Your task to perform on an android device: turn off javascript in the chrome app Image 0: 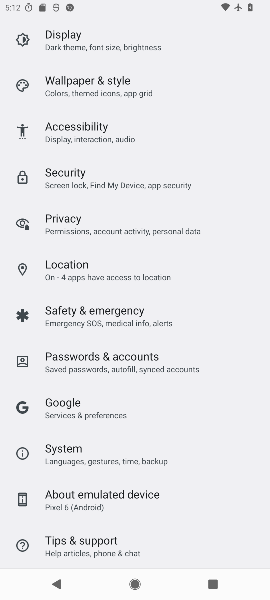
Step 0: press home button
Your task to perform on an android device: turn off javascript in the chrome app Image 1: 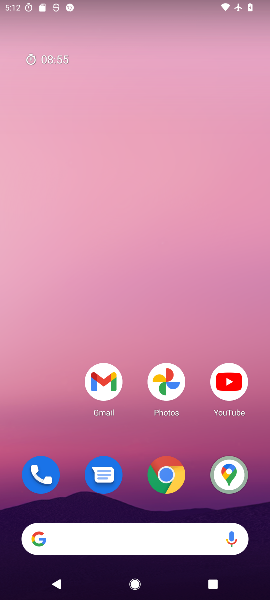
Step 1: drag from (66, 434) to (66, 153)
Your task to perform on an android device: turn off javascript in the chrome app Image 2: 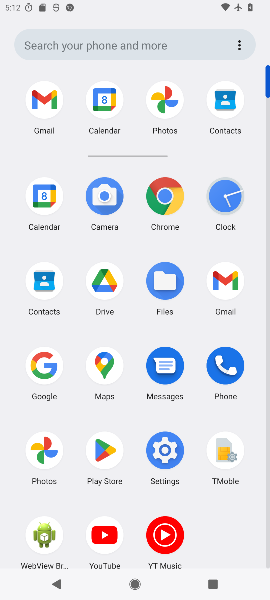
Step 2: click (163, 197)
Your task to perform on an android device: turn off javascript in the chrome app Image 3: 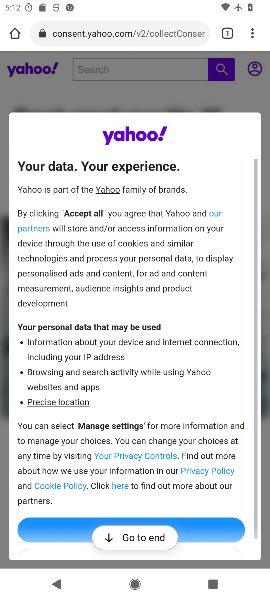
Step 3: click (253, 34)
Your task to perform on an android device: turn off javascript in the chrome app Image 4: 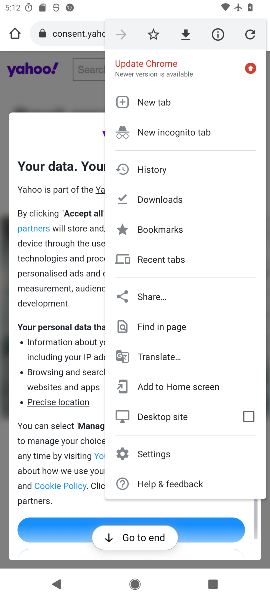
Step 4: click (152, 454)
Your task to perform on an android device: turn off javascript in the chrome app Image 5: 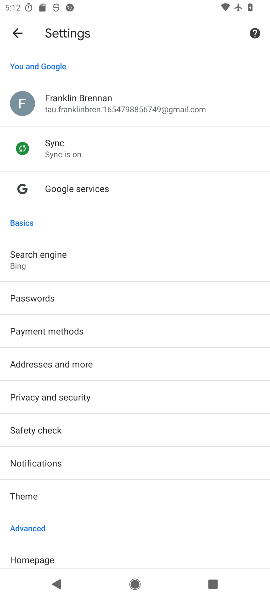
Step 5: drag from (201, 483) to (211, 401)
Your task to perform on an android device: turn off javascript in the chrome app Image 6: 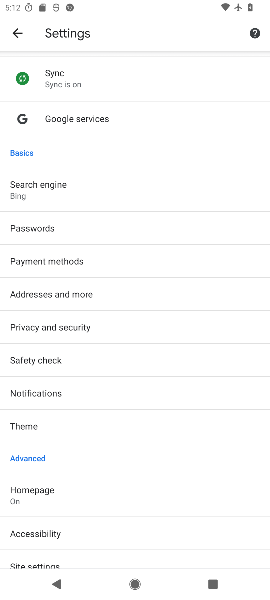
Step 6: drag from (188, 488) to (199, 399)
Your task to perform on an android device: turn off javascript in the chrome app Image 7: 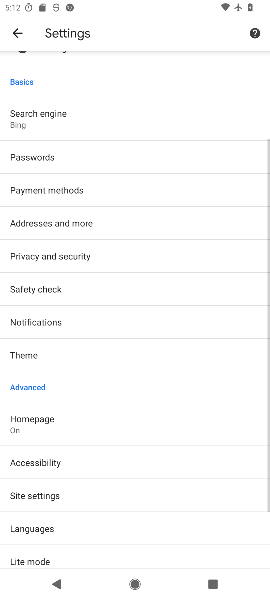
Step 7: drag from (189, 509) to (191, 421)
Your task to perform on an android device: turn off javascript in the chrome app Image 8: 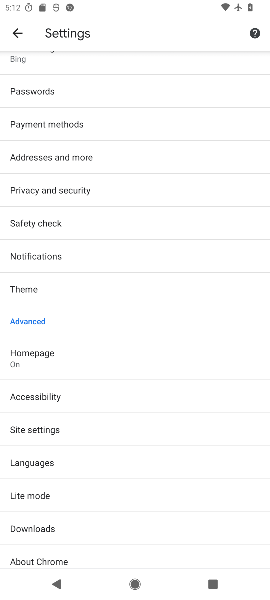
Step 8: drag from (165, 504) to (166, 393)
Your task to perform on an android device: turn off javascript in the chrome app Image 9: 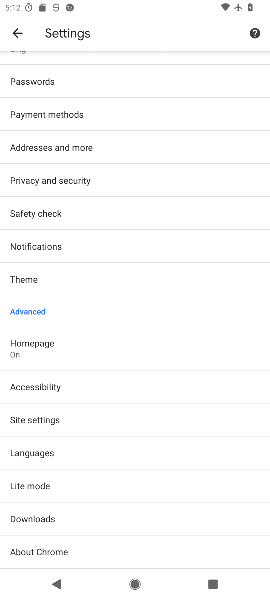
Step 9: drag from (172, 293) to (174, 346)
Your task to perform on an android device: turn off javascript in the chrome app Image 10: 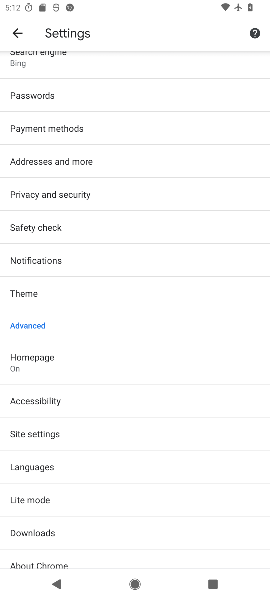
Step 10: click (122, 430)
Your task to perform on an android device: turn off javascript in the chrome app Image 11: 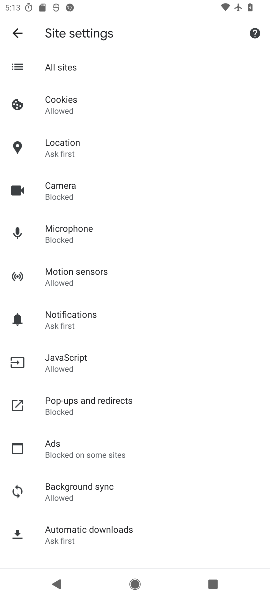
Step 11: drag from (193, 434) to (193, 370)
Your task to perform on an android device: turn off javascript in the chrome app Image 12: 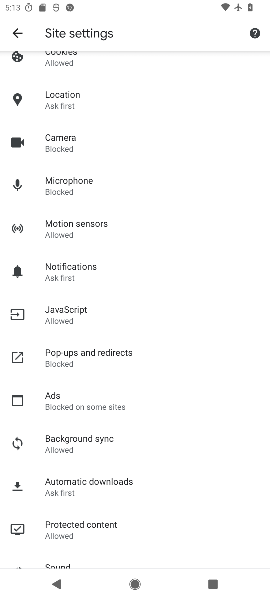
Step 12: drag from (175, 438) to (177, 361)
Your task to perform on an android device: turn off javascript in the chrome app Image 13: 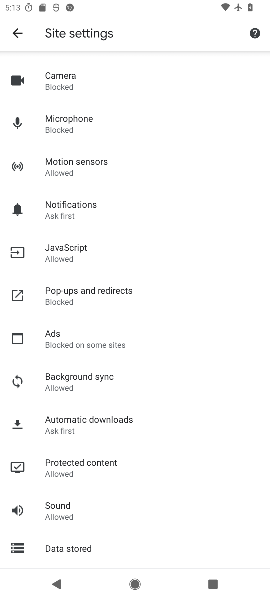
Step 13: click (142, 255)
Your task to perform on an android device: turn off javascript in the chrome app Image 14: 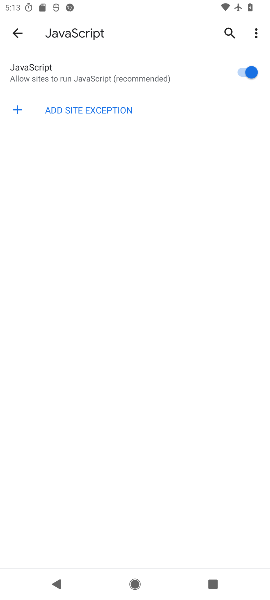
Step 14: click (248, 72)
Your task to perform on an android device: turn off javascript in the chrome app Image 15: 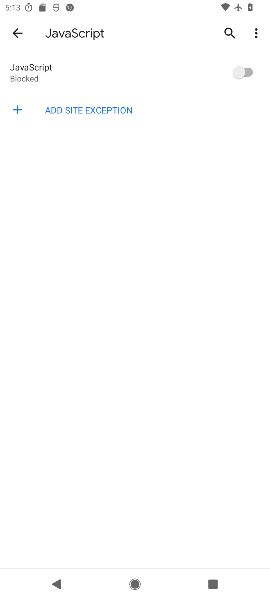
Step 15: task complete